Your task to perform on an android device: move a message to another label in the gmail app Image 0: 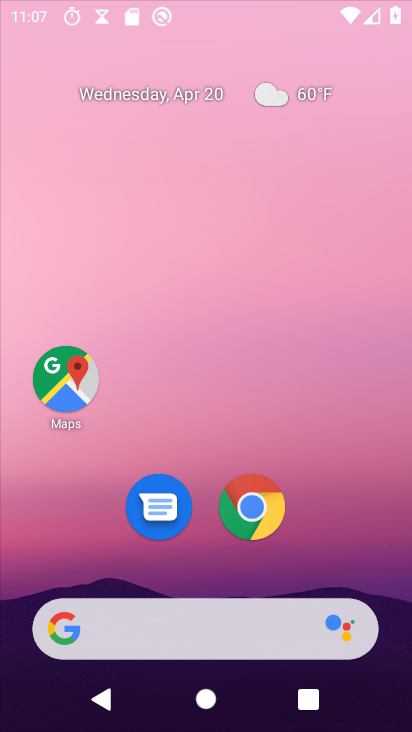
Step 0: click (255, 504)
Your task to perform on an android device: move a message to another label in the gmail app Image 1: 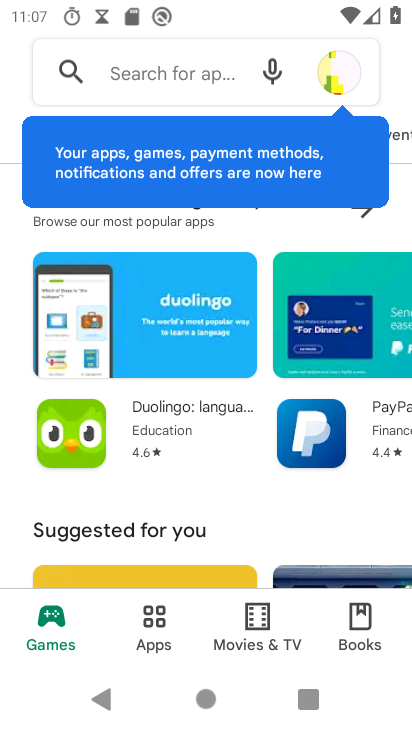
Step 1: press home button
Your task to perform on an android device: move a message to another label in the gmail app Image 2: 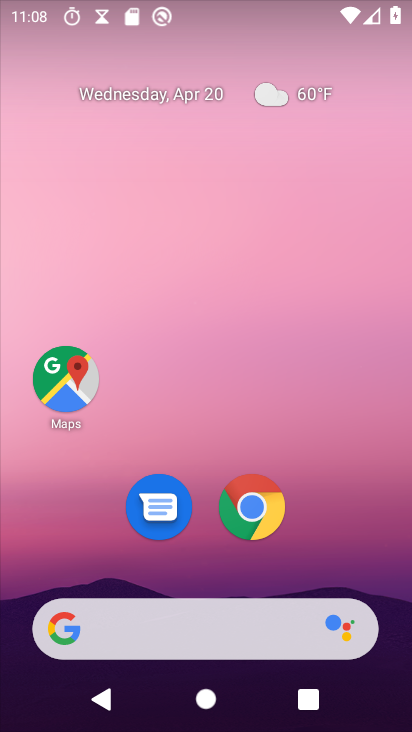
Step 2: drag from (143, 581) to (171, 215)
Your task to perform on an android device: move a message to another label in the gmail app Image 3: 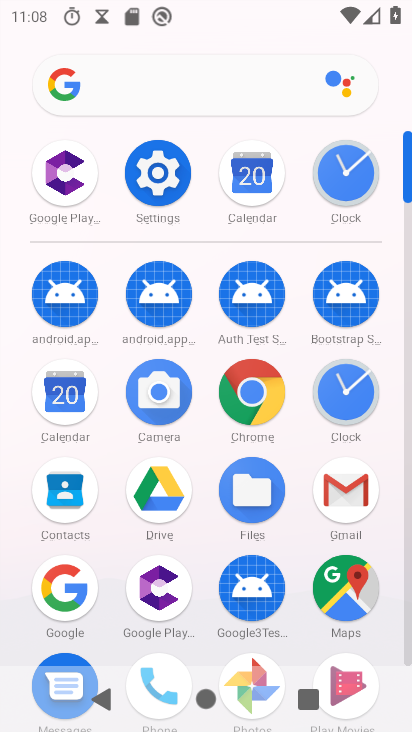
Step 3: click (337, 487)
Your task to perform on an android device: move a message to another label in the gmail app Image 4: 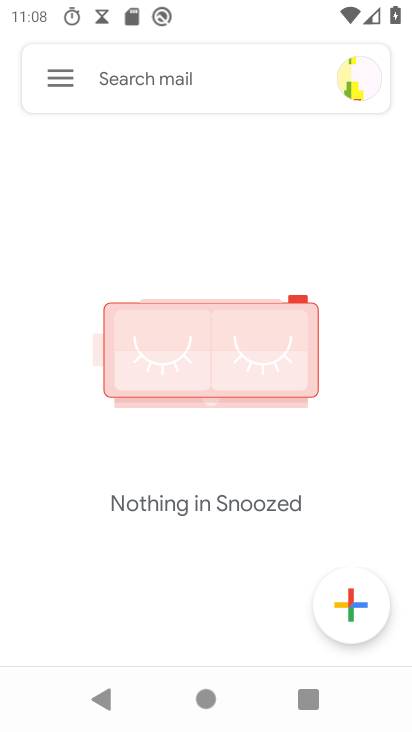
Step 4: click (63, 70)
Your task to perform on an android device: move a message to another label in the gmail app Image 5: 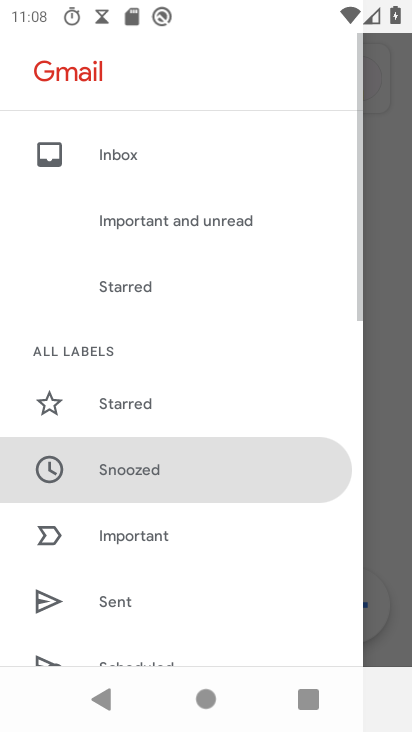
Step 5: drag from (121, 454) to (116, 210)
Your task to perform on an android device: move a message to another label in the gmail app Image 6: 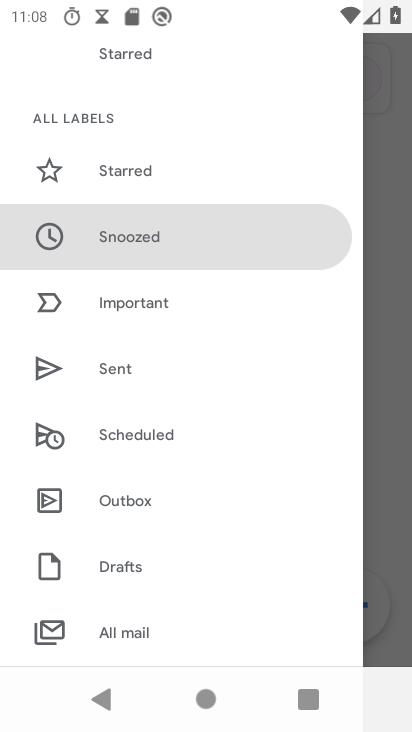
Step 6: click (126, 627)
Your task to perform on an android device: move a message to another label in the gmail app Image 7: 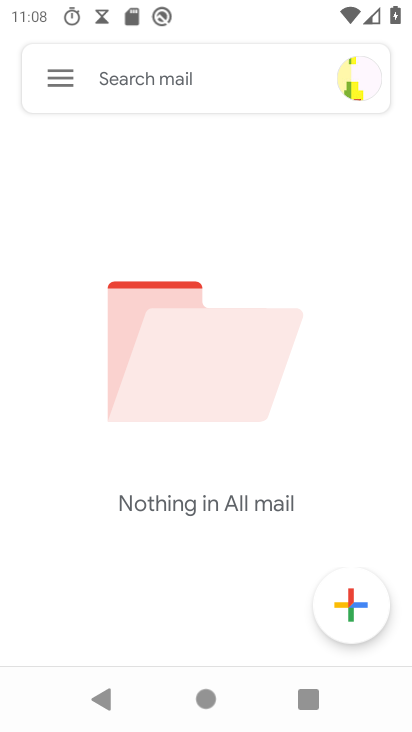
Step 7: task complete